Your task to perform on an android device: change the clock display to show seconds Image 0: 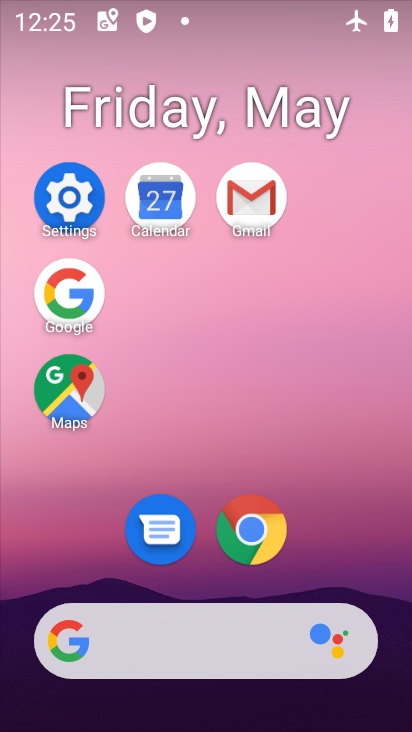
Step 0: drag from (363, 548) to (315, 154)
Your task to perform on an android device: change the clock display to show seconds Image 1: 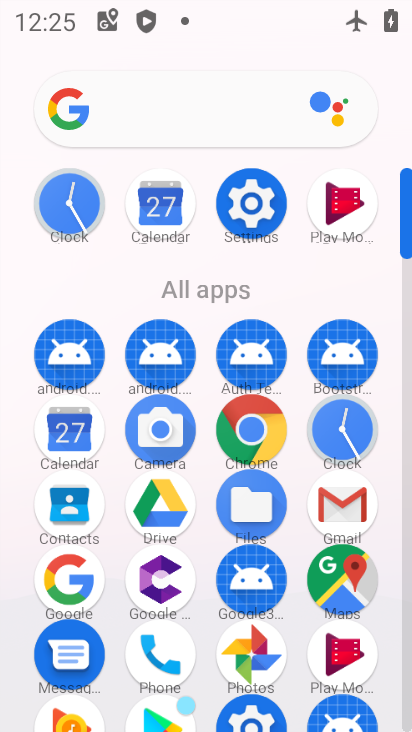
Step 1: drag from (340, 444) to (173, 281)
Your task to perform on an android device: change the clock display to show seconds Image 2: 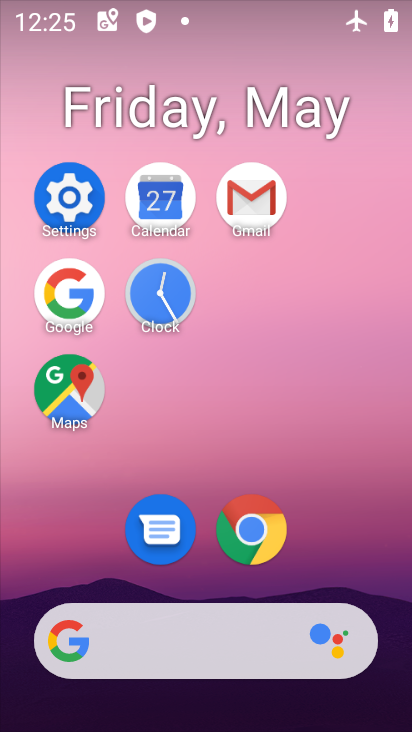
Step 2: click (172, 279)
Your task to perform on an android device: change the clock display to show seconds Image 3: 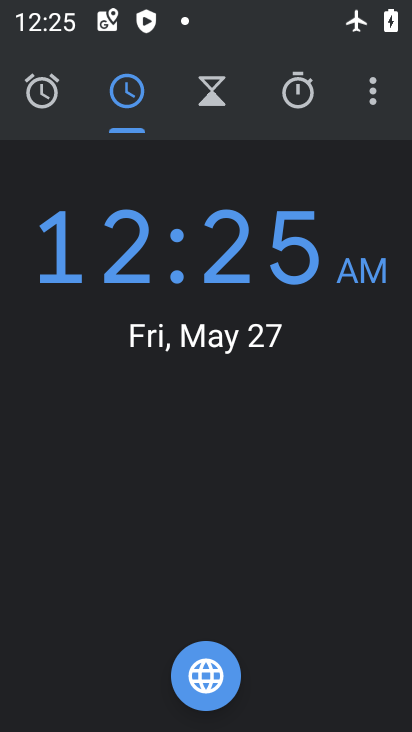
Step 3: click (365, 104)
Your task to perform on an android device: change the clock display to show seconds Image 4: 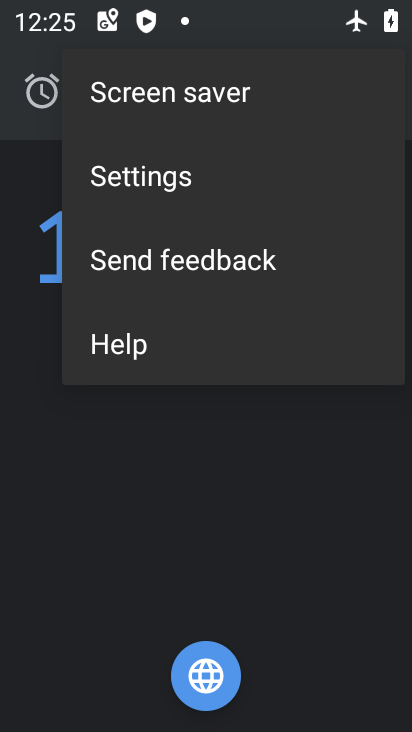
Step 4: click (291, 155)
Your task to perform on an android device: change the clock display to show seconds Image 5: 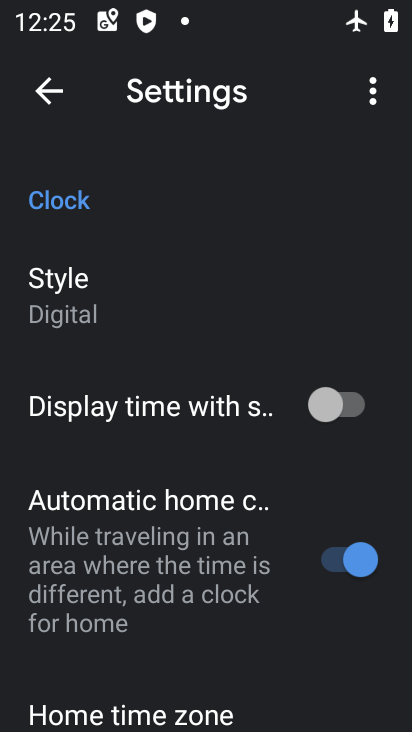
Step 5: click (343, 409)
Your task to perform on an android device: change the clock display to show seconds Image 6: 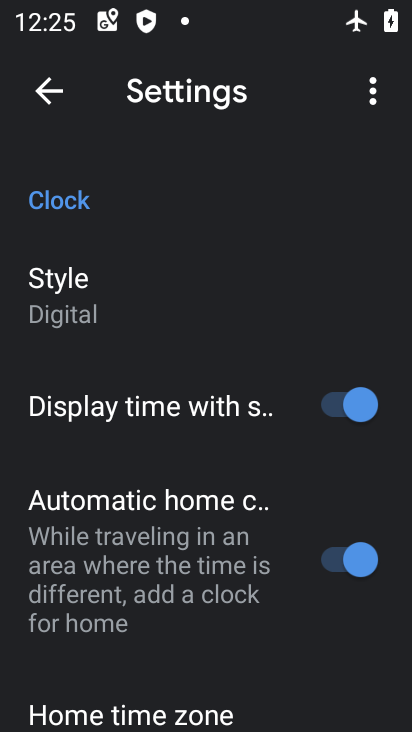
Step 6: task complete